Your task to perform on an android device: turn off notifications in google photos Image 0: 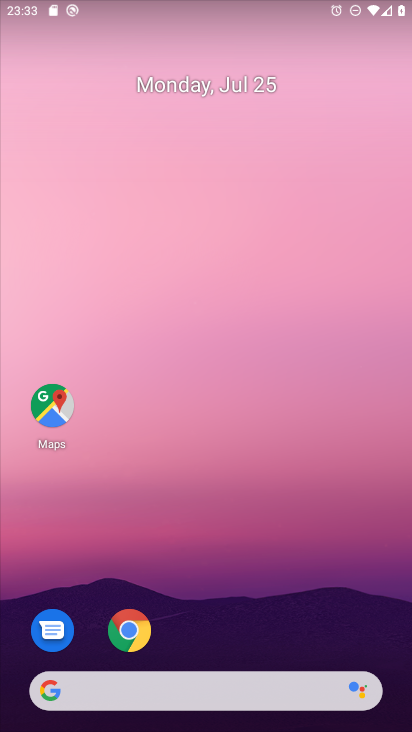
Step 0: drag from (220, 483) to (226, 103)
Your task to perform on an android device: turn off notifications in google photos Image 1: 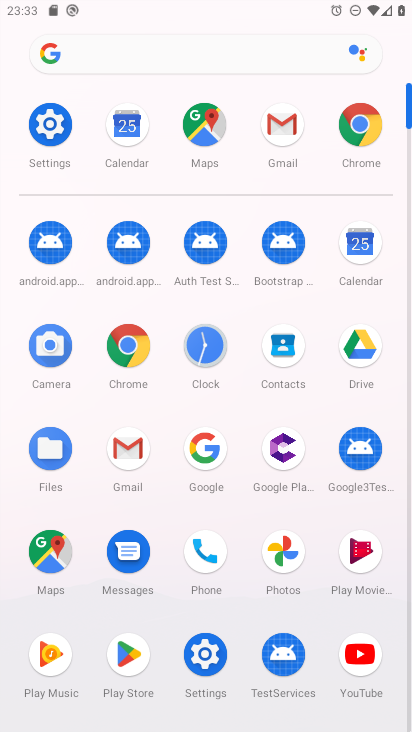
Step 1: click (289, 555)
Your task to perform on an android device: turn off notifications in google photos Image 2: 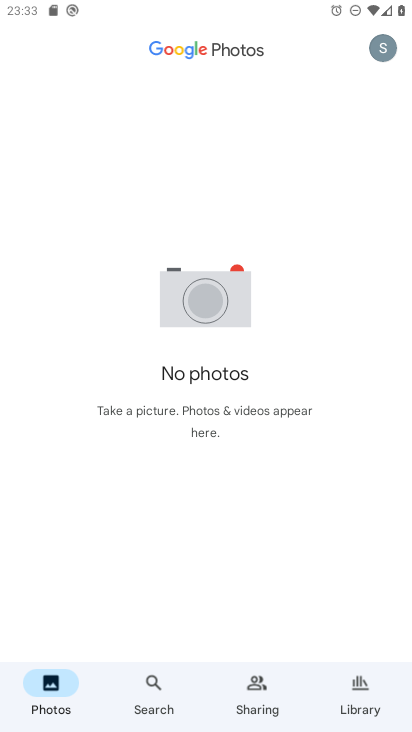
Step 2: click (382, 41)
Your task to perform on an android device: turn off notifications in google photos Image 3: 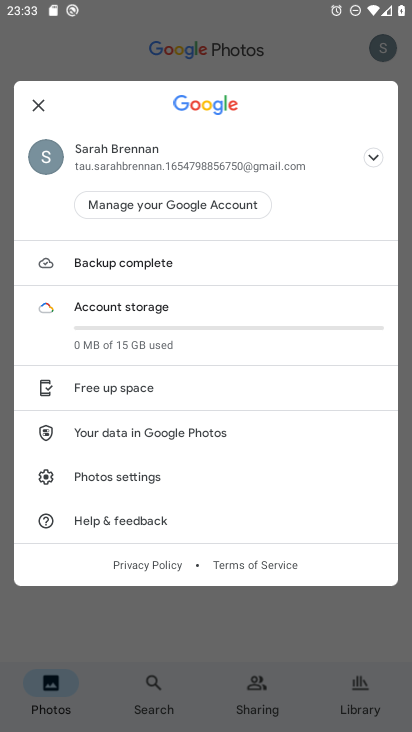
Step 3: click (115, 472)
Your task to perform on an android device: turn off notifications in google photos Image 4: 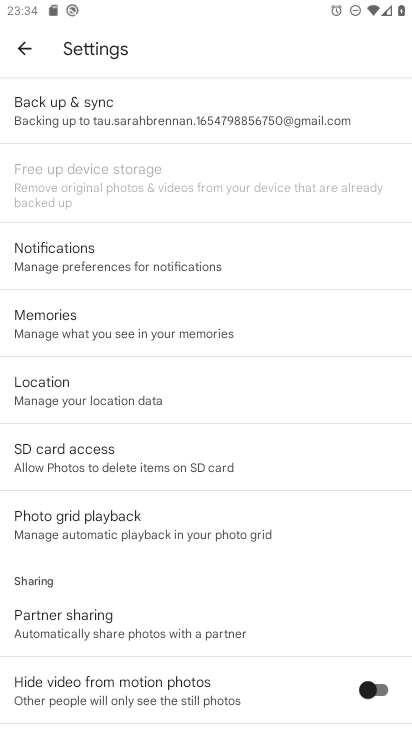
Step 4: click (232, 268)
Your task to perform on an android device: turn off notifications in google photos Image 5: 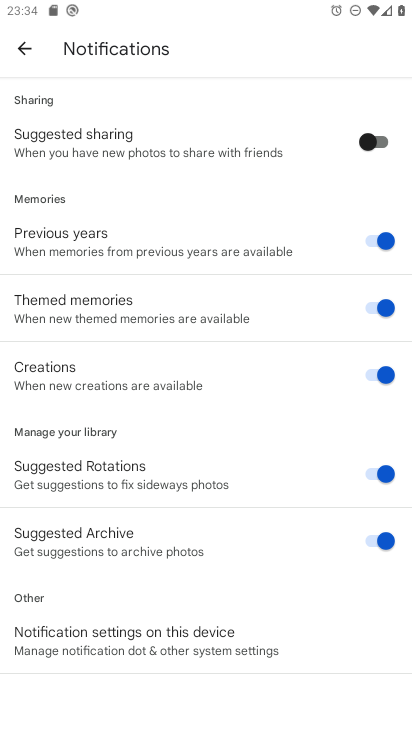
Step 5: click (191, 640)
Your task to perform on an android device: turn off notifications in google photos Image 6: 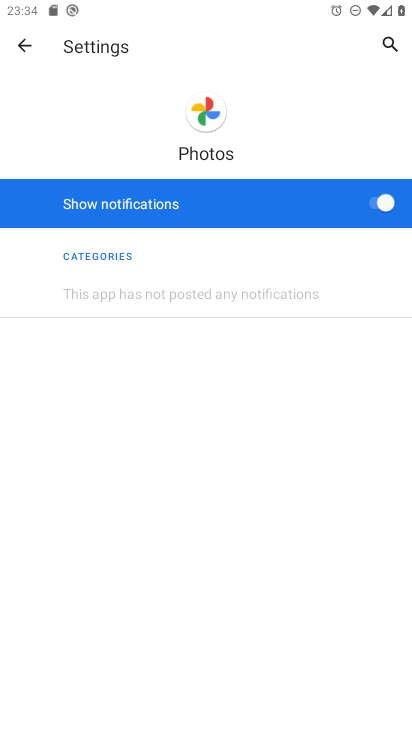
Step 6: click (333, 202)
Your task to perform on an android device: turn off notifications in google photos Image 7: 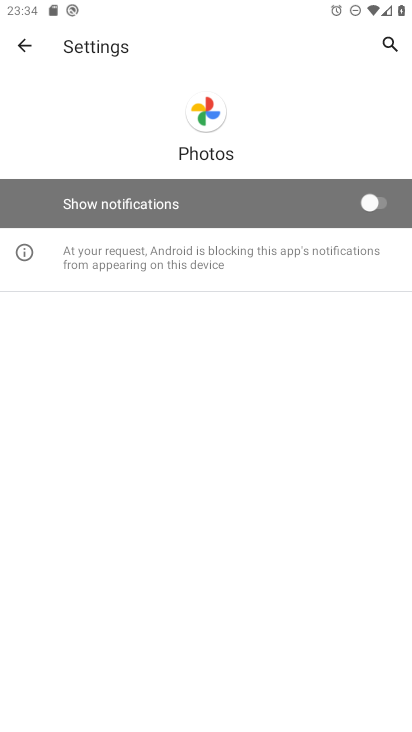
Step 7: task complete